Your task to perform on an android device: What's on my calendar today? Image 0: 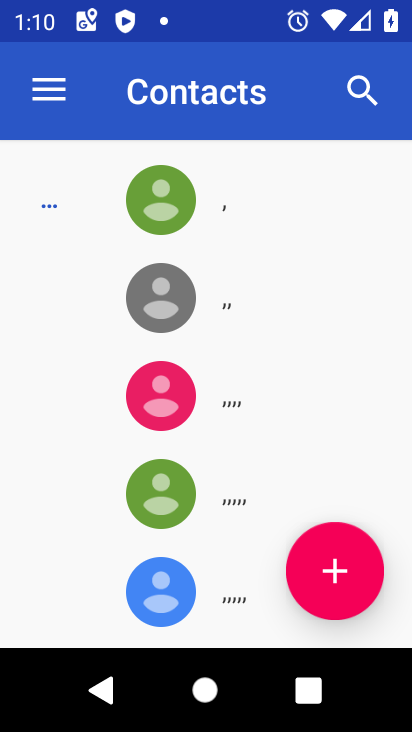
Step 0: press home button
Your task to perform on an android device: What's on my calendar today? Image 1: 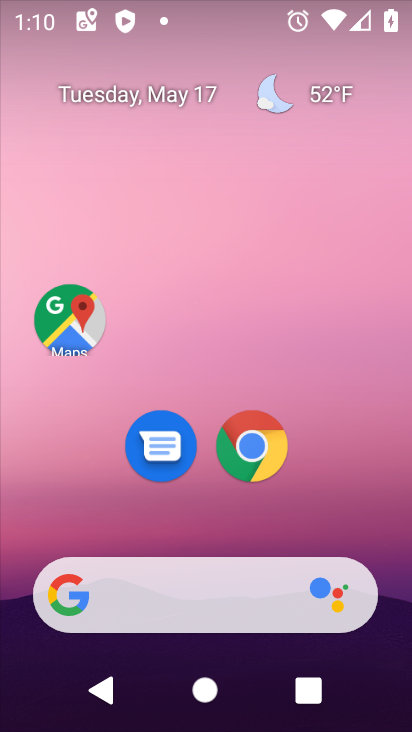
Step 1: drag from (199, 521) to (256, 259)
Your task to perform on an android device: What's on my calendar today? Image 2: 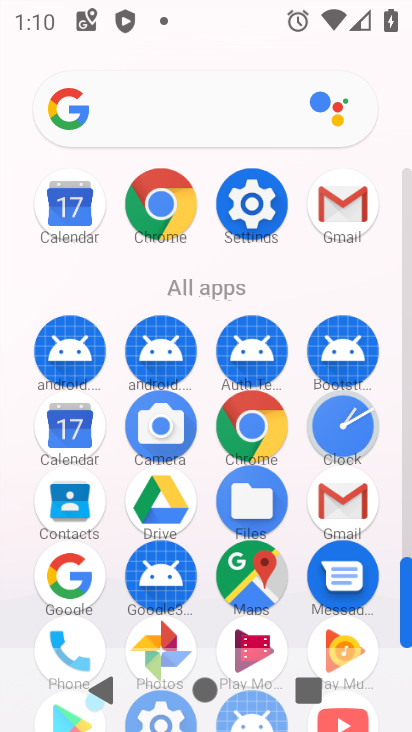
Step 2: click (56, 427)
Your task to perform on an android device: What's on my calendar today? Image 3: 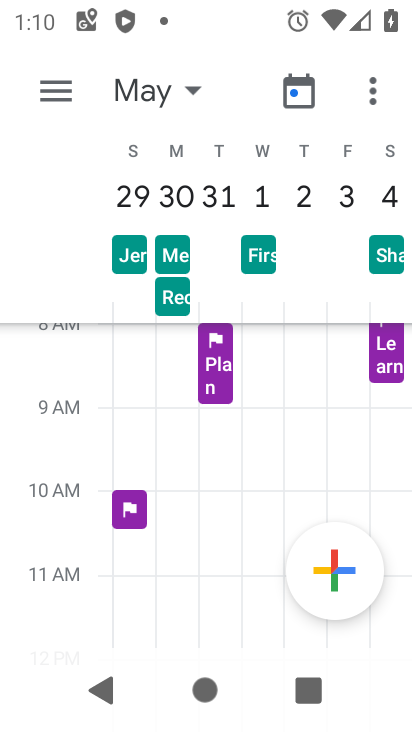
Step 3: click (185, 89)
Your task to perform on an android device: What's on my calendar today? Image 4: 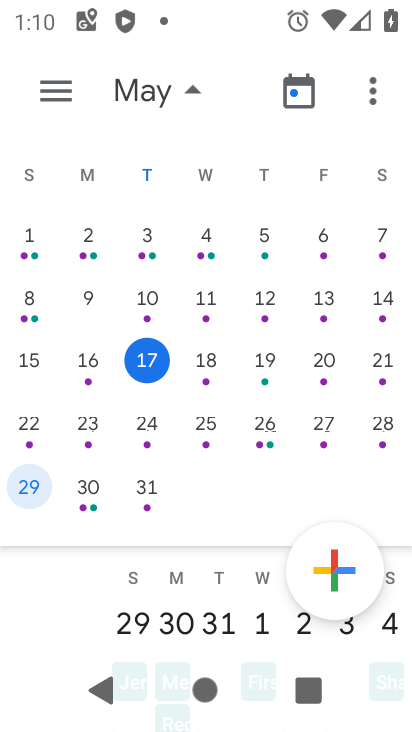
Step 4: click (159, 359)
Your task to perform on an android device: What's on my calendar today? Image 5: 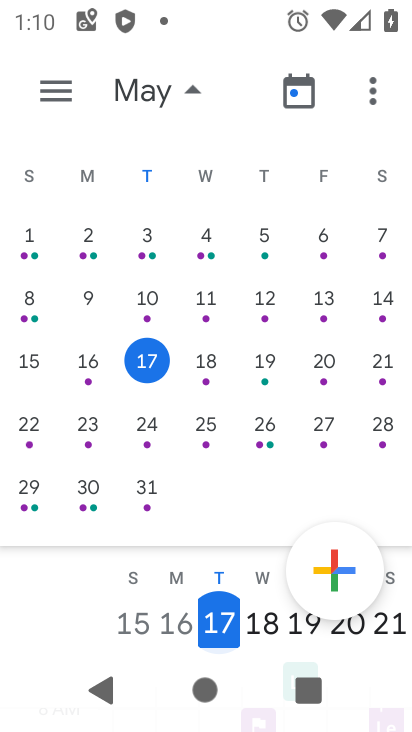
Step 5: task complete